Your task to perform on an android device: change your default location settings in chrome Image 0: 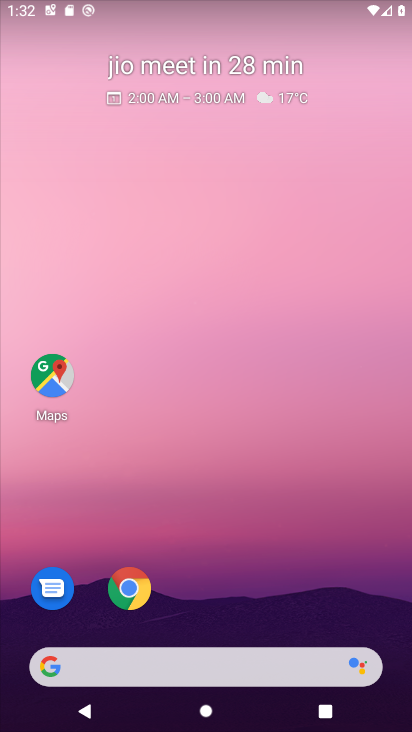
Step 0: click (119, 594)
Your task to perform on an android device: change your default location settings in chrome Image 1: 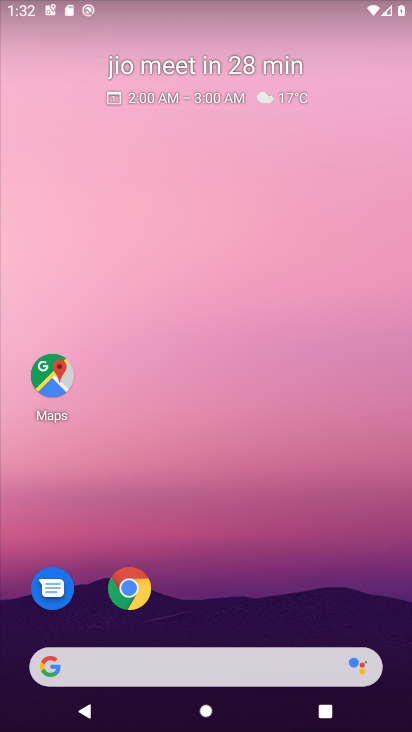
Step 1: click (119, 594)
Your task to perform on an android device: change your default location settings in chrome Image 2: 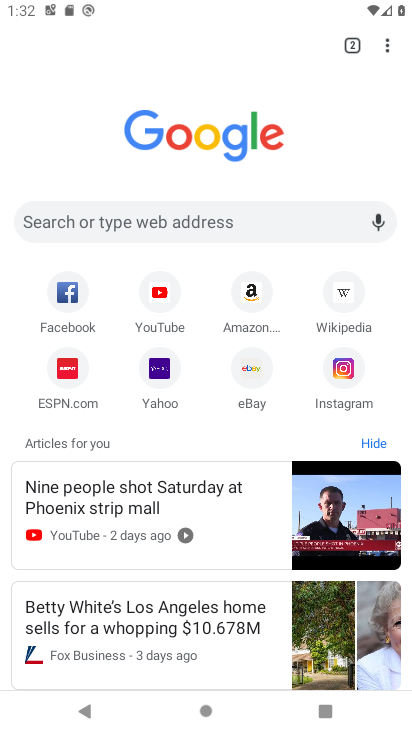
Step 2: click (378, 42)
Your task to perform on an android device: change your default location settings in chrome Image 3: 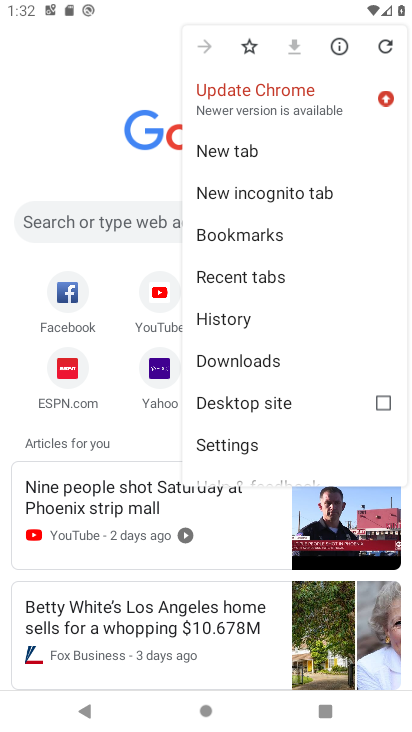
Step 3: click (249, 432)
Your task to perform on an android device: change your default location settings in chrome Image 4: 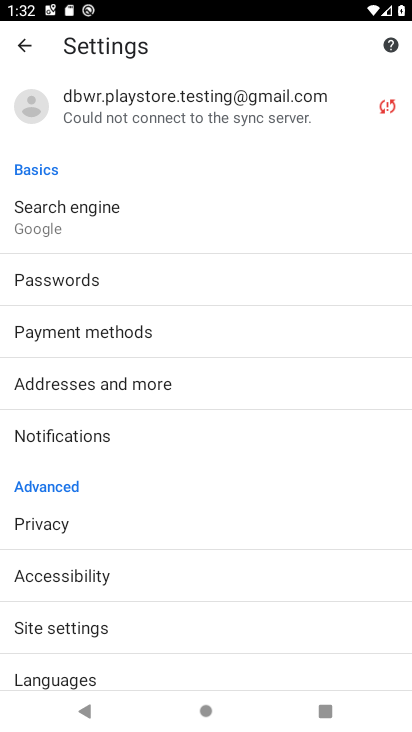
Step 4: click (96, 628)
Your task to perform on an android device: change your default location settings in chrome Image 5: 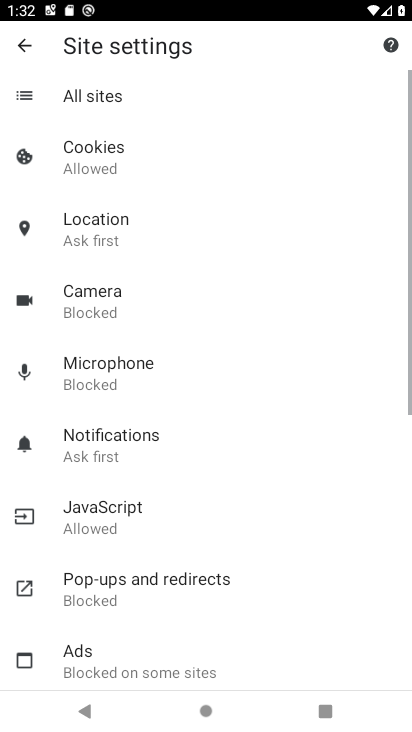
Step 5: drag from (292, 573) to (404, 0)
Your task to perform on an android device: change your default location settings in chrome Image 6: 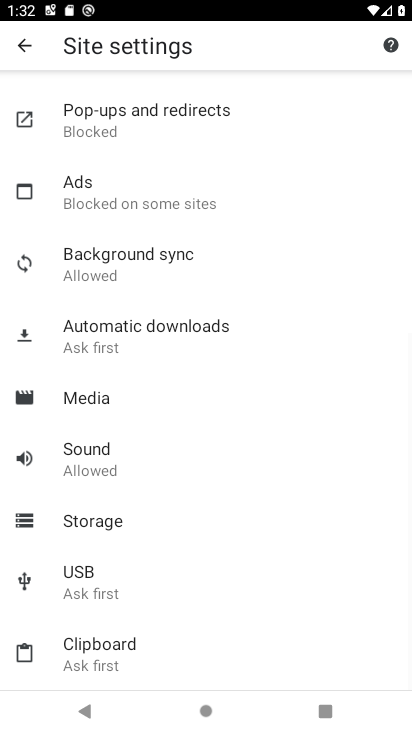
Step 6: drag from (263, 177) to (226, 710)
Your task to perform on an android device: change your default location settings in chrome Image 7: 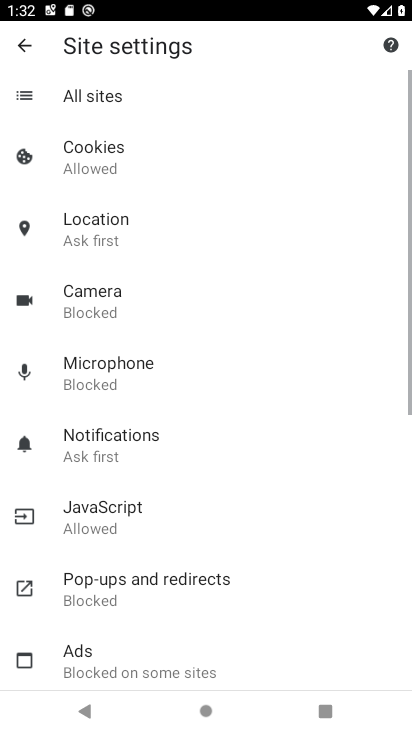
Step 7: click (164, 241)
Your task to perform on an android device: change your default location settings in chrome Image 8: 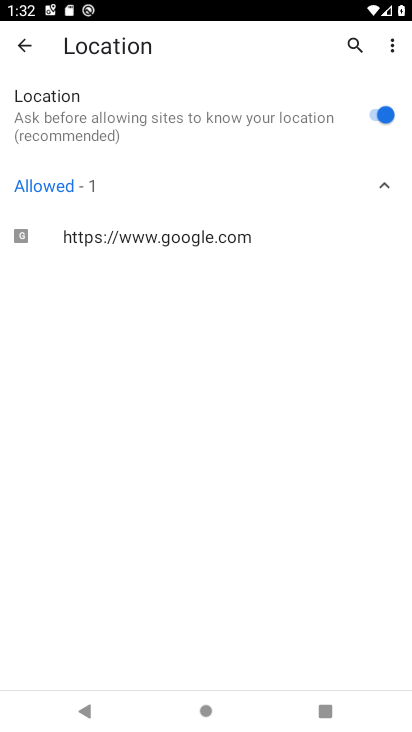
Step 8: click (384, 116)
Your task to perform on an android device: change your default location settings in chrome Image 9: 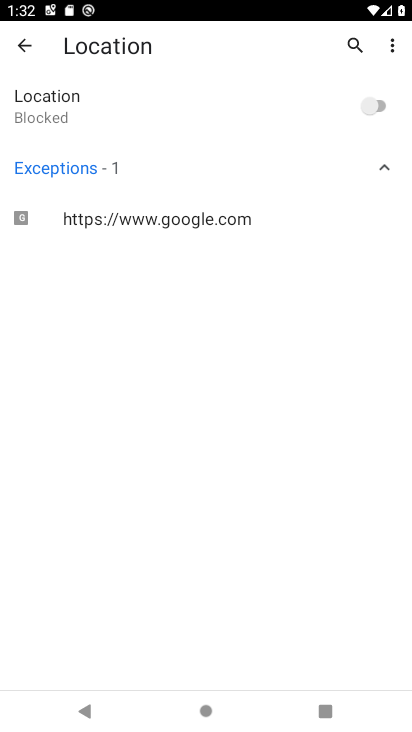
Step 9: task complete